Your task to perform on an android device: Open Yahoo.com Image 0: 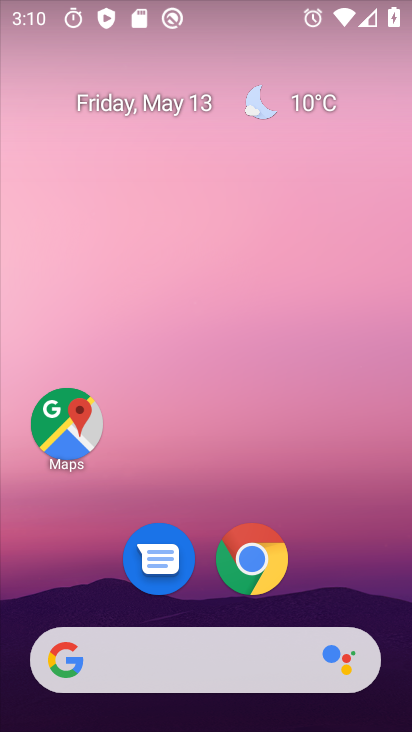
Step 0: click (262, 558)
Your task to perform on an android device: Open Yahoo.com Image 1: 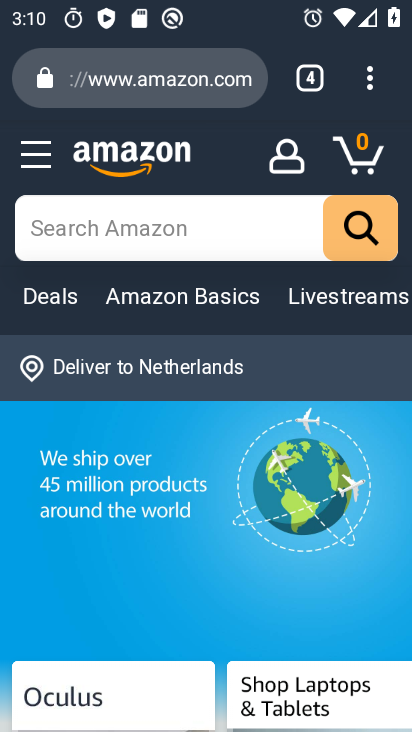
Step 1: click (309, 89)
Your task to perform on an android device: Open Yahoo.com Image 2: 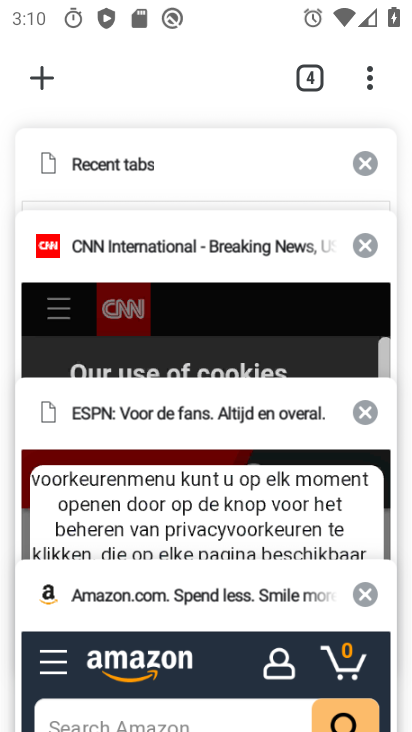
Step 2: click (39, 89)
Your task to perform on an android device: Open Yahoo.com Image 3: 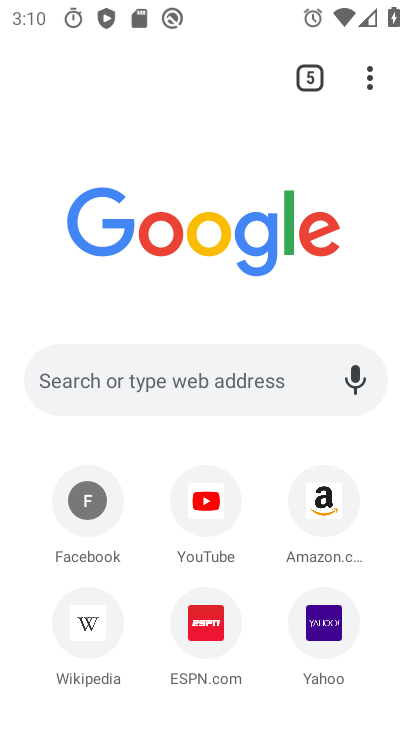
Step 3: click (304, 637)
Your task to perform on an android device: Open Yahoo.com Image 4: 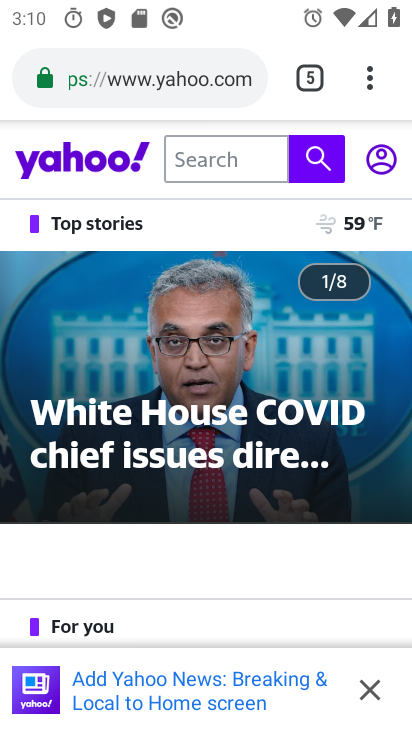
Step 4: task complete